Your task to perform on an android device: Find coffee shops on Maps Image 0: 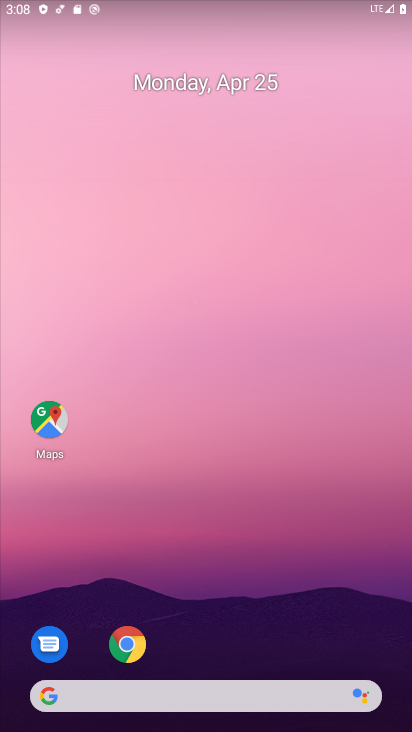
Step 0: click (49, 415)
Your task to perform on an android device: Find coffee shops on Maps Image 1: 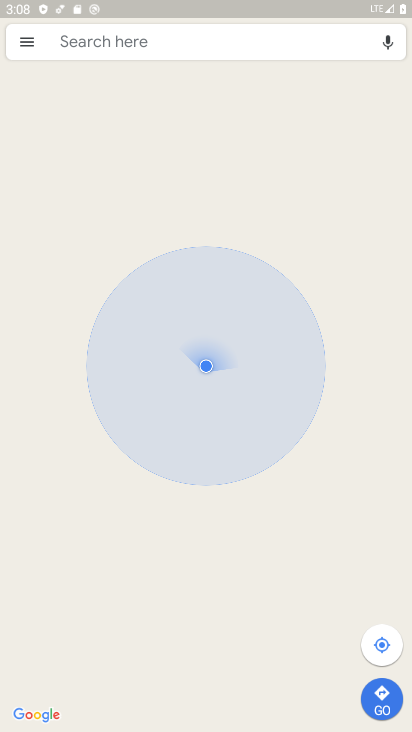
Step 1: click (117, 42)
Your task to perform on an android device: Find coffee shops on Maps Image 2: 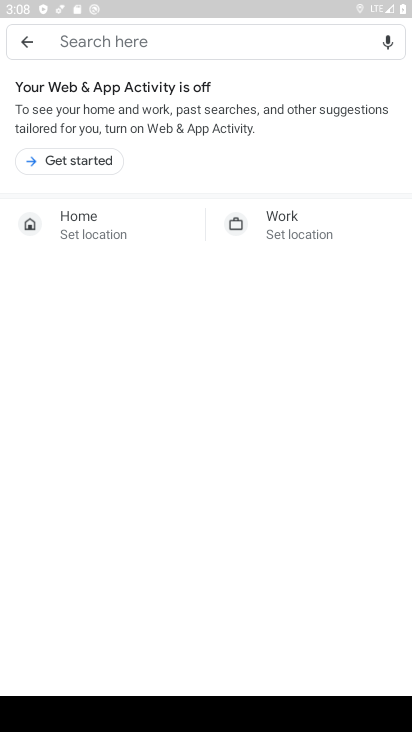
Step 2: click (117, 42)
Your task to perform on an android device: Find coffee shops on Maps Image 3: 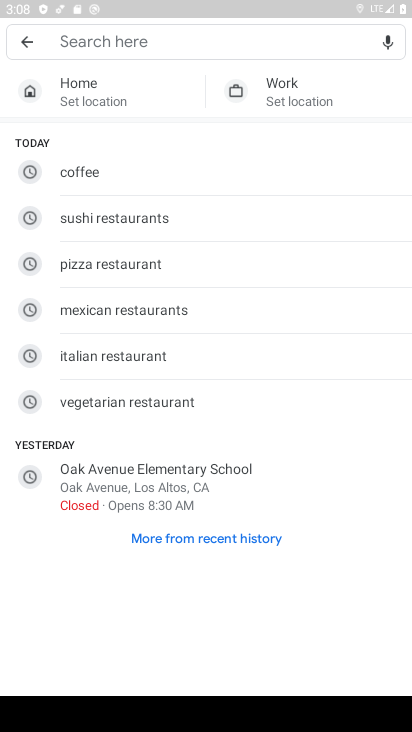
Step 3: type "coffee shops"
Your task to perform on an android device: Find coffee shops on Maps Image 4: 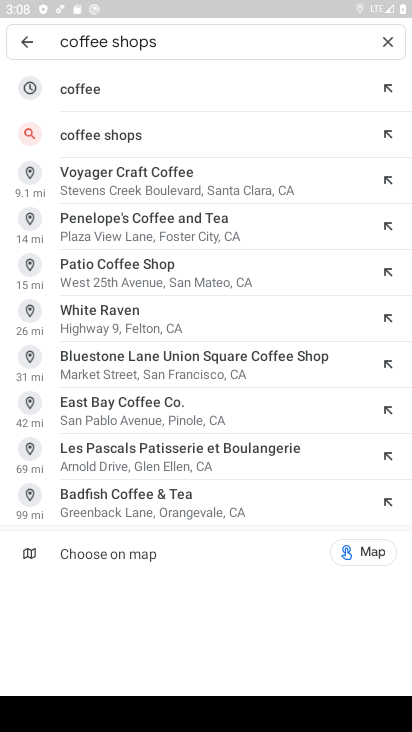
Step 4: click (195, 143)
Your task to perform on an android device: Find coffee shops on Maps Image 5: 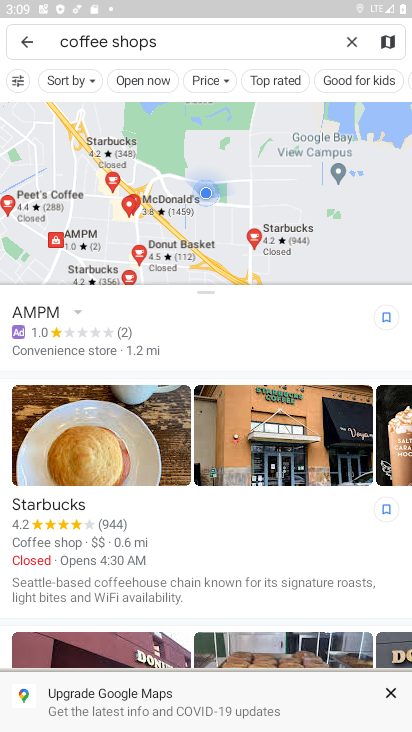
Step 5: task complete